Your task to perform on an android device: When is my next appointment? Image 0: 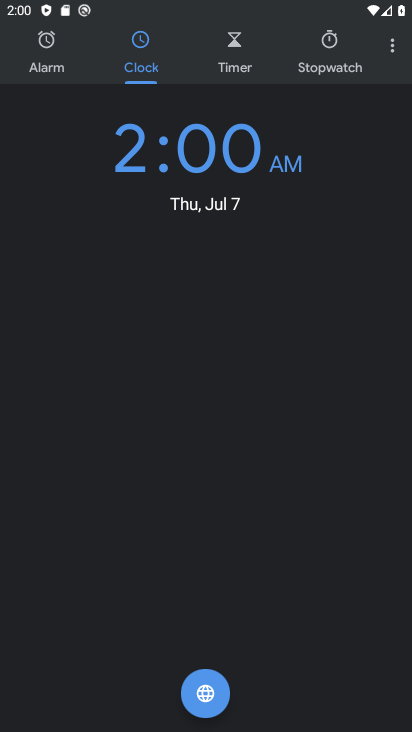
Step 0: press home button
Your task to perform on an android device: When is my next appointment? Image 1: 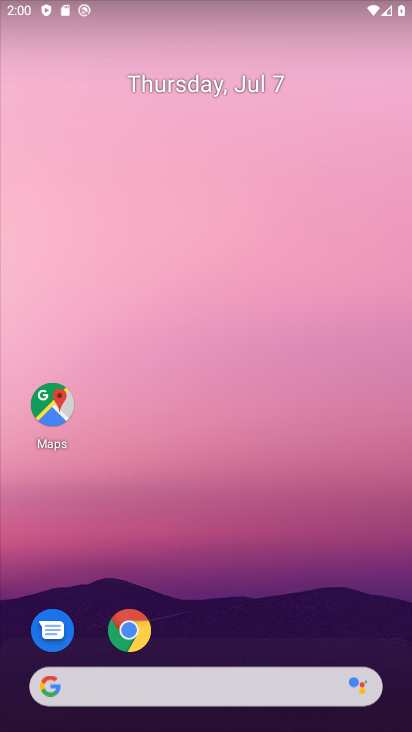
Step 1: drag from (222, 673) to (260, 142)
Your task to perform on an android device: When is my next appointment? Image 2: 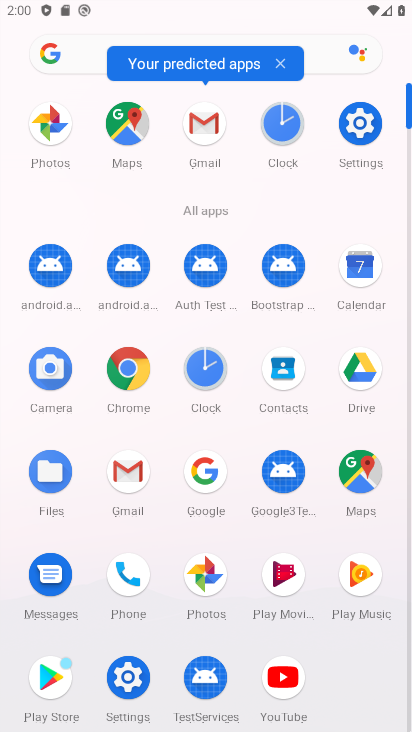
Step 2: click (351, 275)
Your task to perform on an android device: When is my next appointment? Image 3: 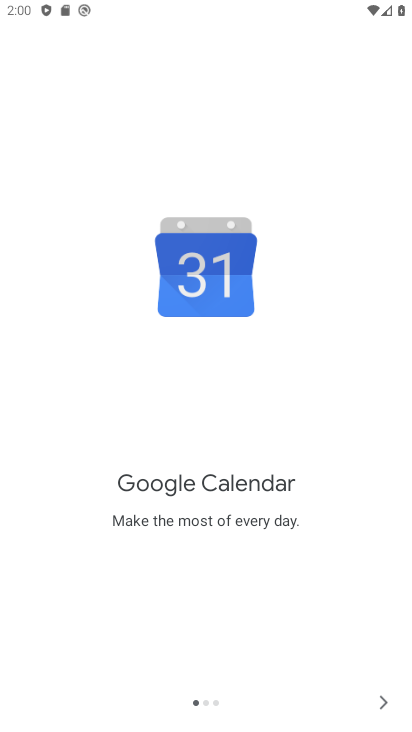
Step 3: click (377, 709)
Your task to perform on an android device: When is my next appointment? Image 4: 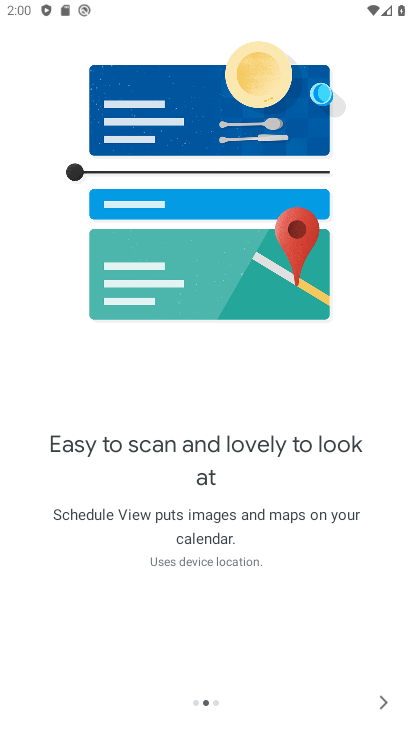
Step 4: click (378, 708)
Your task to perform on an android device: When is my next appointment? Image 5: 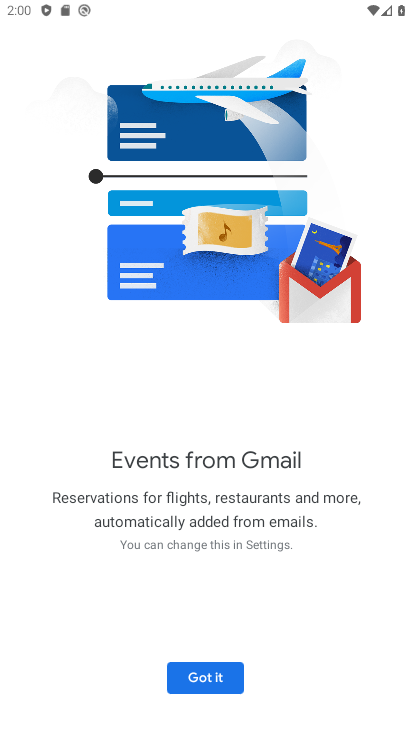
Step 5: click (378, 708)
Your task to perform on an android device: When is my next appointment? Image 6: 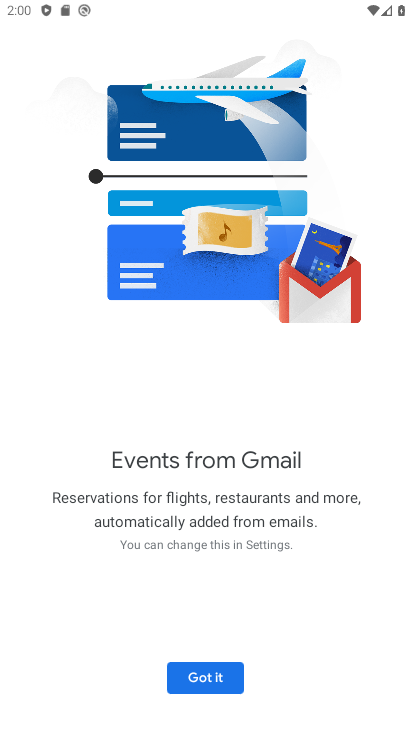
Step 6: click (205, 684)
Your task to perform on an android device: When is my next appointment? Image 7: 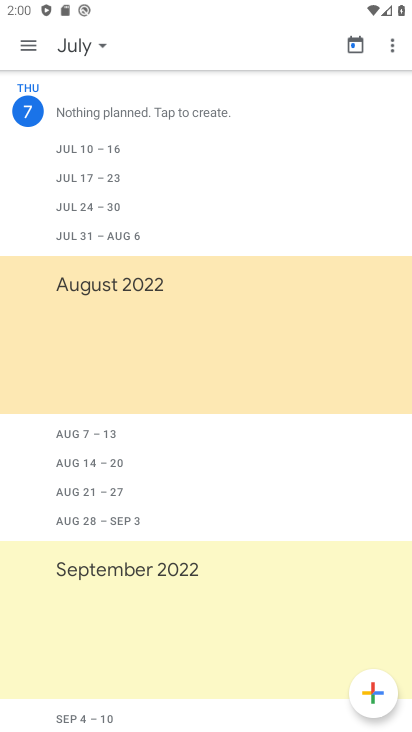
Step 7: click (82, 41)
Your task to perform on an android device: When is my next appointment? Image 8: 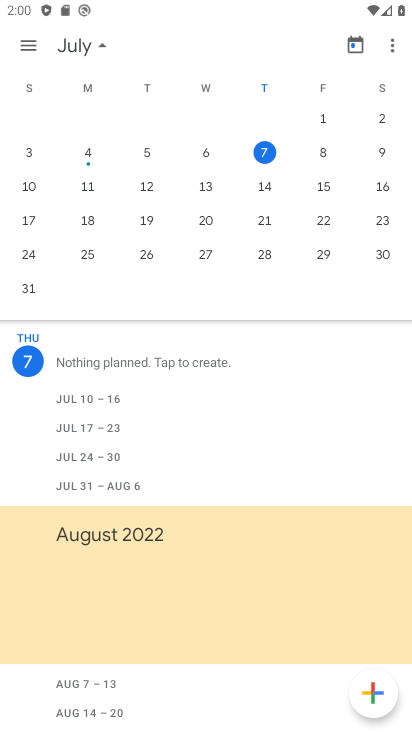
Step 8: click (324, 155)
Your task to perform on an android device: When is my next appointment? Image 9: 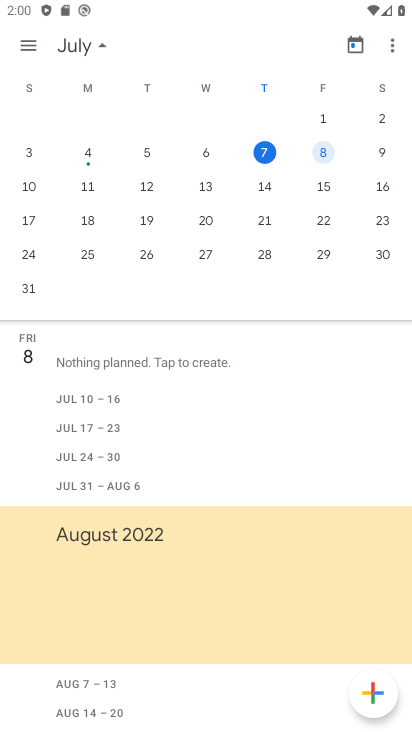
Step 9: task complete